Your task to perform on an android device: turn off priority inbox in the gmail app Image 0: 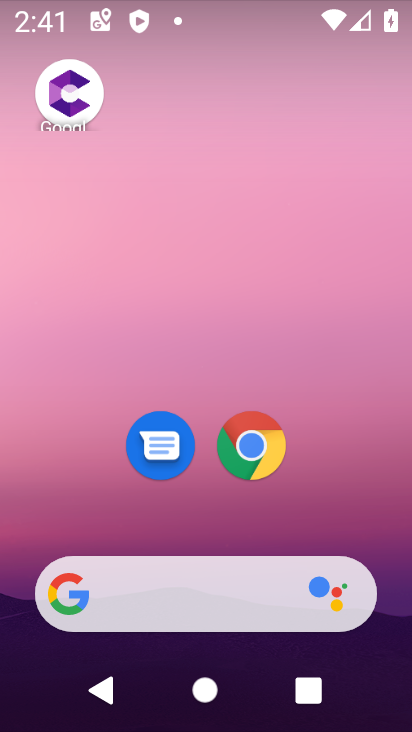
Step 0: drag from (327, 524) to (313, 56)
Your task to perform on an android device: turn off priority inbox in the gmail app Image 1: 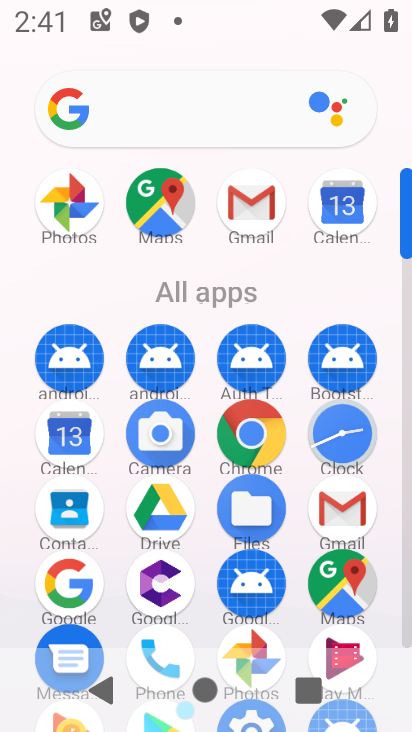
Step 1: drag from (296, 537) to (309, 221)
Your task to perform on an android device: turn off priority inbox in the gmail app Image 2: 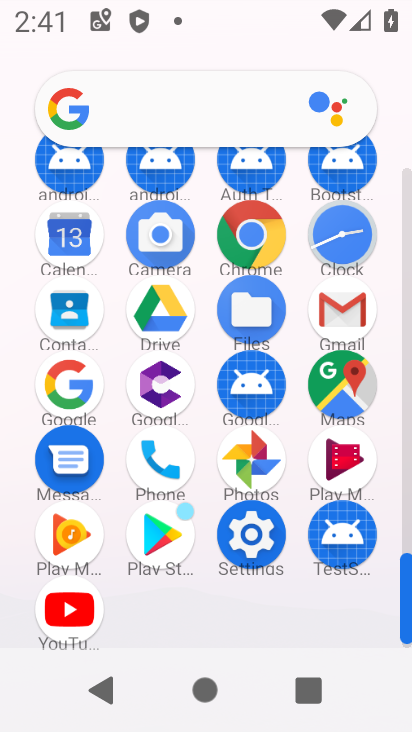
Step 2: click (254, 540)
Your task to perform on an android device: turn off priority inbox in the gmail app Image 3: 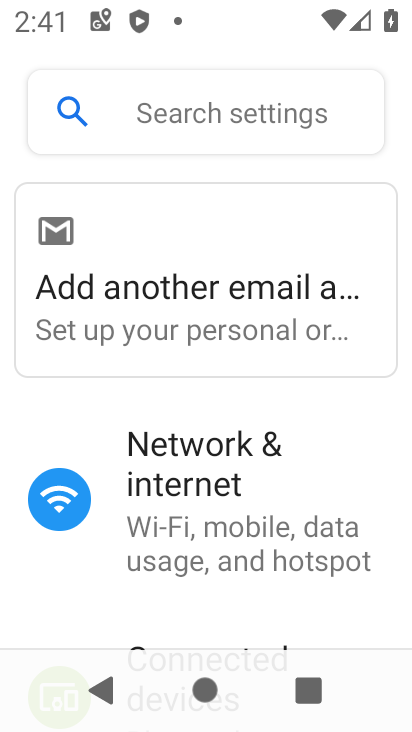
Step 3: drag from (249, 541) to (295, 201)
Your task to perform on an android device: turn off priority inbox in the gmail app Image 4: 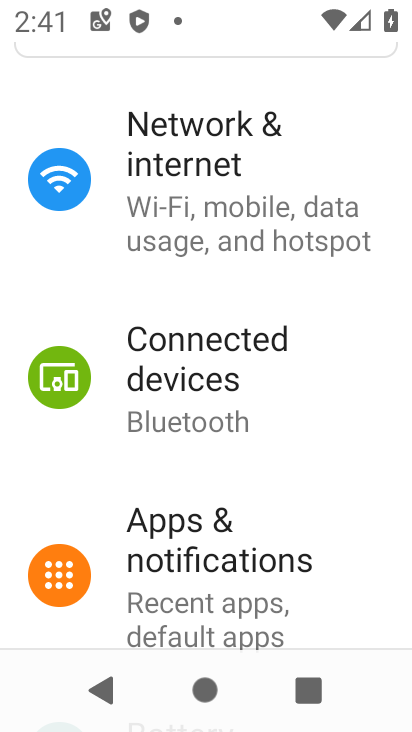
Step 4: drag from (233, 532) to (262, 201)
Your task to perform on an android device: turn off priority inbox in the gmail app Image 5: 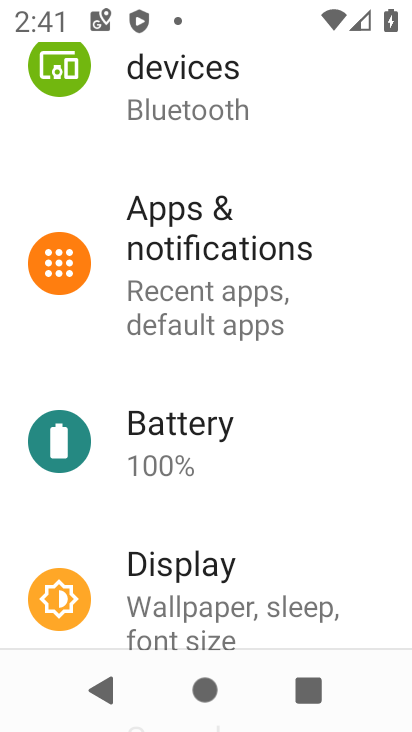
Step 5: drag from (237, 549) to (234, 235)
Your task to perform on an android device: turn off priority inbox in the gmail app Image 6: 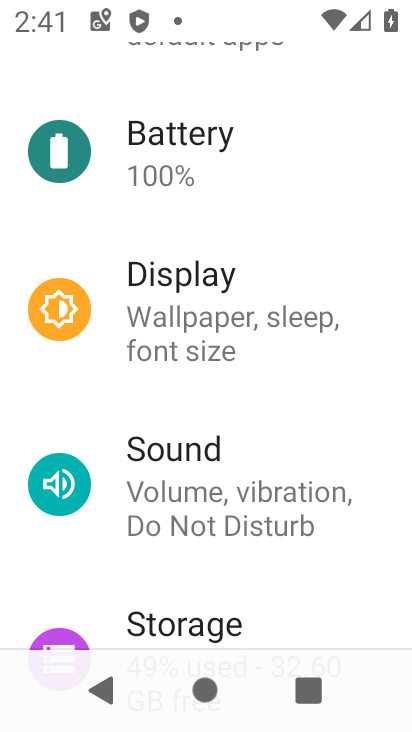
Step 6: click (229, 306)
Your task to perform on an android device: turn off priority inbox in the gmail app Image 7: 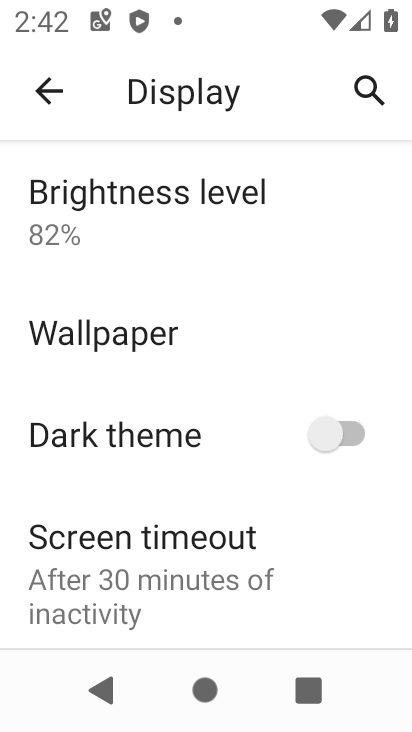
Step 7: drag from (150, 557) to (224, 176)
Your task to perform on an android device: turn off priority inbox in the gmail app Image 8: 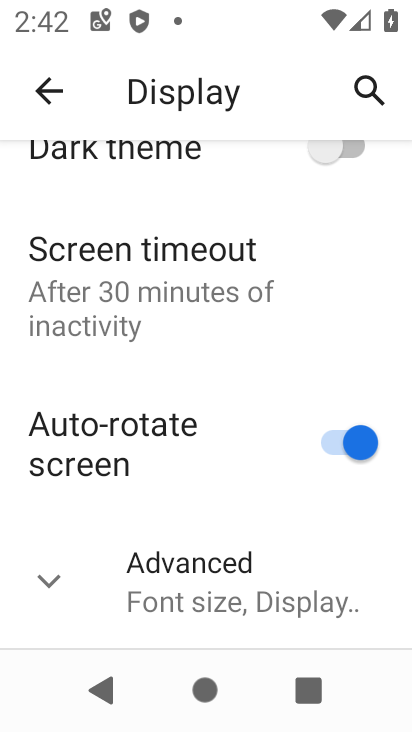
Step 8: click (51, 576)
Your task to perform on an android device: turn off priority inbox in the gmail app Image 9: 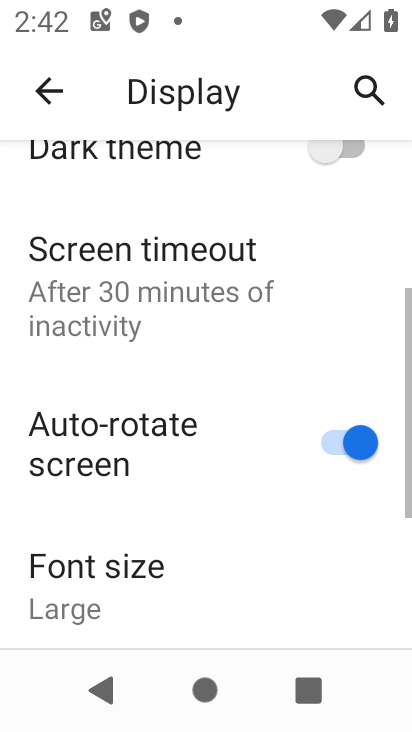
Step 9: drag from (190, 504) to (234, 203)
Your task to perform on an android device: turn off priority inbox in the gmail app Image 10: 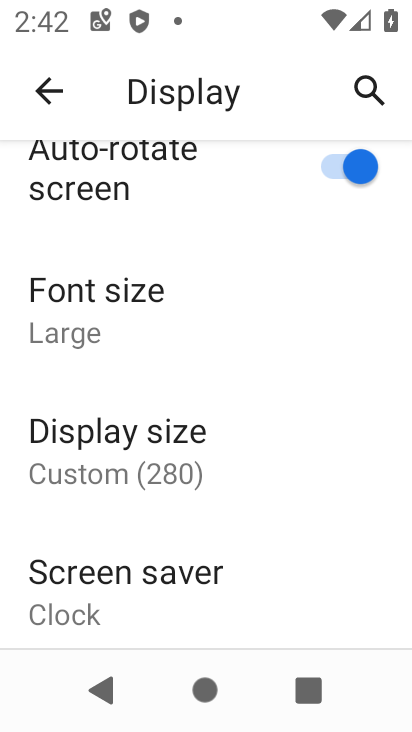
Step 10: click (152, 463)
Your task to perform on an android device: turn off priority inbox in the gmail app Image 11: 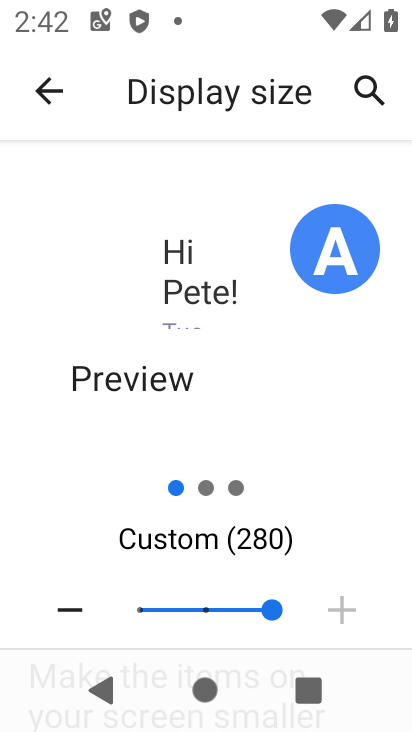
Step 11: click (71, 608)
Your task to perform on an android device: turn off priority inbox in the gmail app Image 12: 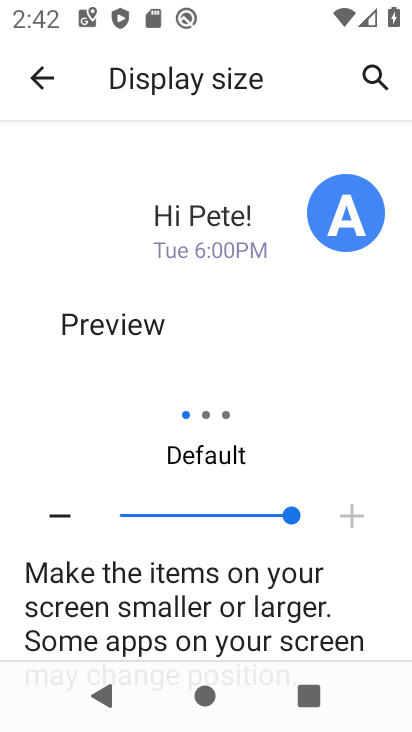
Step 12: click (61, 506)
Your task to perform on an android device: turn off priority inbox in the gmail app Image 13: 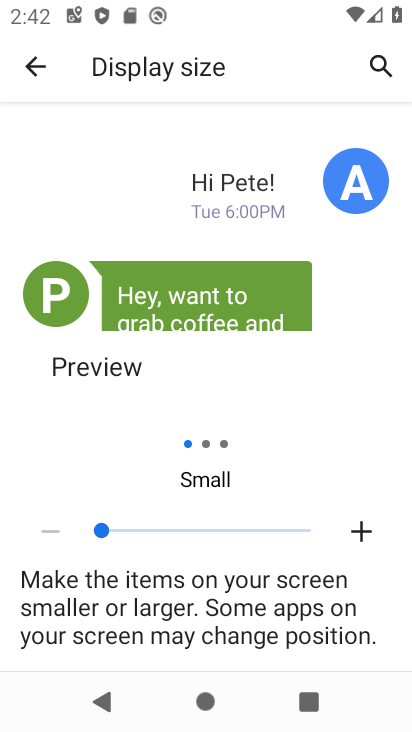
Step 13: click (34, 60)
Your task to perform on an android device: turn off priority inbox in the gmail app Image 14: 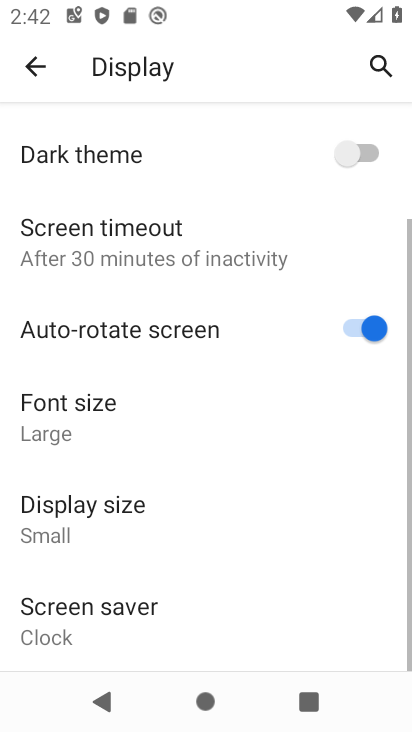
Step 14: click (34, 60)
Your task to perform on an android device: turn off priority inbox in the gmail app Image 15: 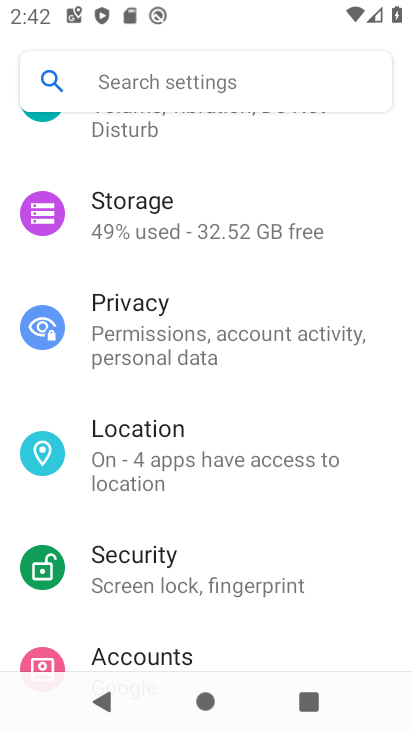
Step 15: drag from (225, 312) to (228, 604)
Your task to perform on an android device: turn off priority inbox in the gmail app Image 16: 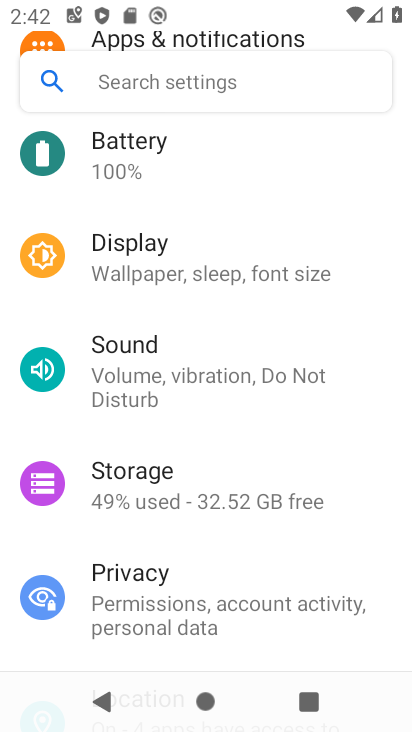
Step 16: drag from (261, 209) to (235, 557)
Your task to perform on an android device: turn off priority inbox in the gmail app Image 17: 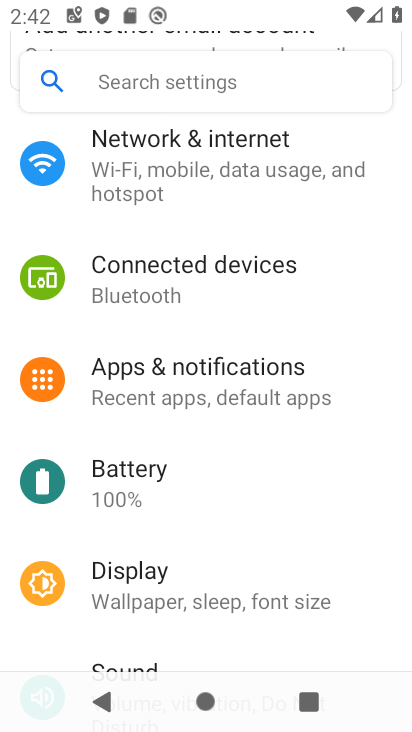
Step 17: press home button
Your task to perform on an android device: turn off priority inbox in the gmail app Image 18: 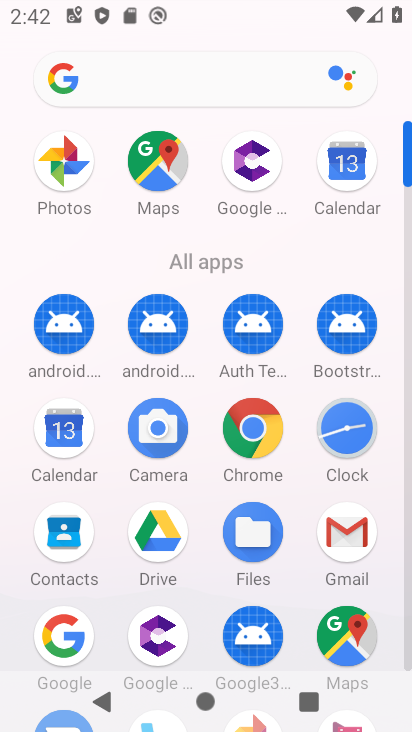
Step 18: click (346, 524)
Your task to perform on an android device: turn off priority inbox in the gmail app Image 19: 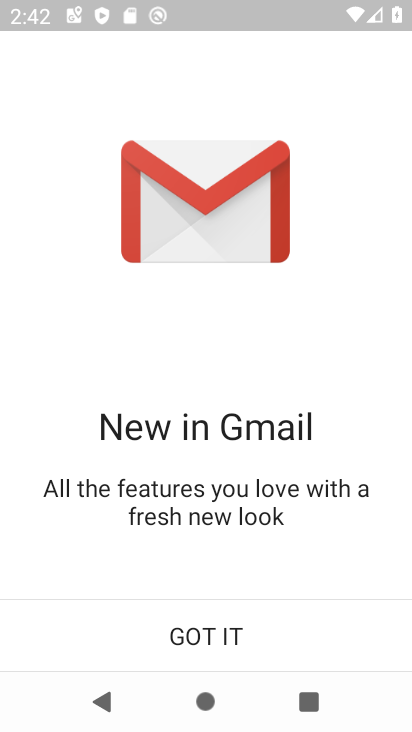
Step 19: click (218, 628)
Your task to perform on an android device: turn off priority inbox in the gmail app Image 20: 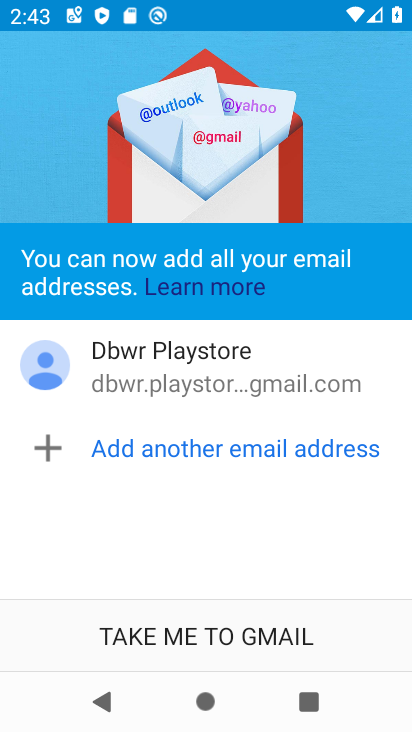
Step 20: click (230, 635)
Your task to perform on an android device: turn off priority inbox in the gmail app Image 21: 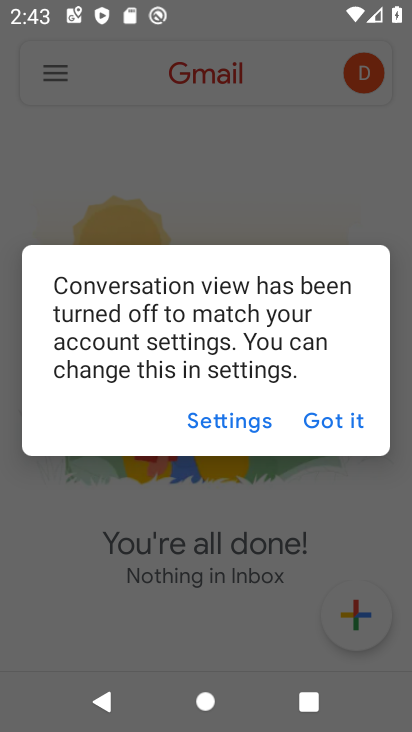
Step 21: click (342, 405)
Your task to perform on an android device: turn off priority inbox in the gmail app Image 22: 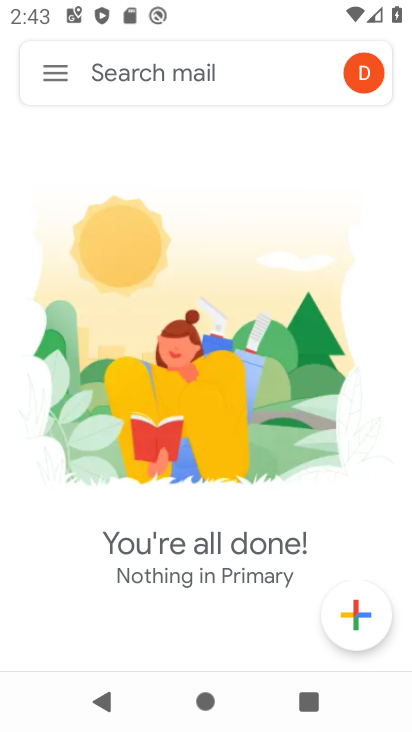
Step 22: click (54, 71)
Your task to perform on an android device: turn off priority inbox in the gmail app Image 23: 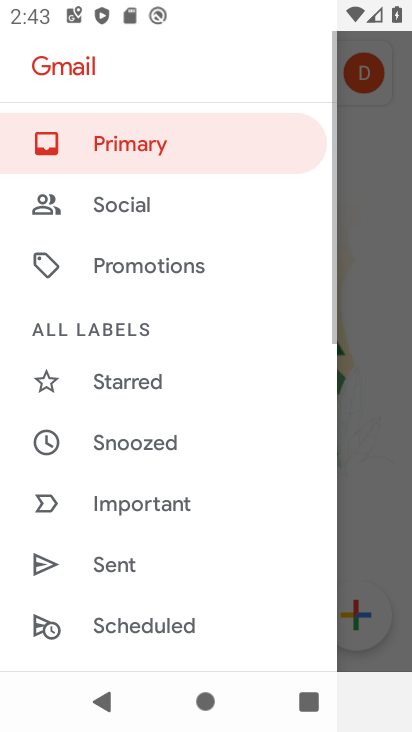
Step 23: drag from (172, 534) to (216, 133)
Your task to perform on an android device: turn off priority inbox in the gmail app Image 24: 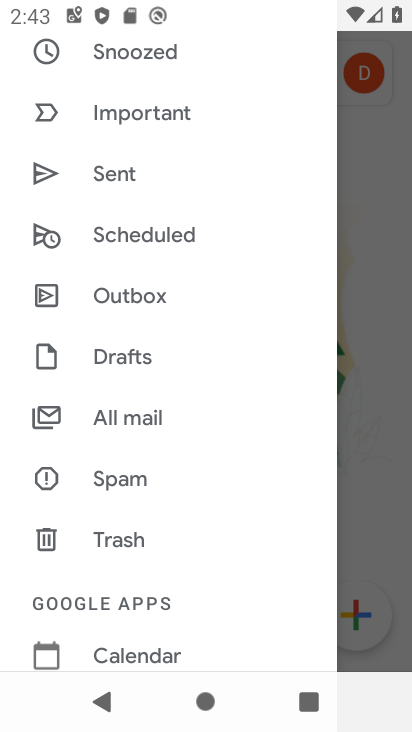
Step 24: drag from (207, 542) to (253, 166)
Your task to perform on an android device: turn off priority inbox in the gmail app Image 25: 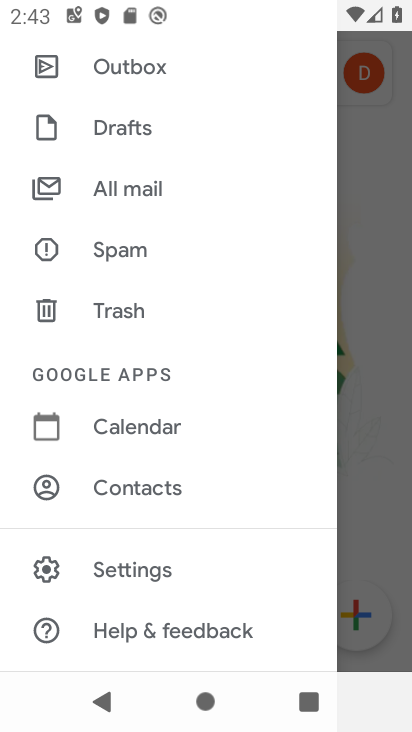
Step 25: click (166, 563)
Your task to perform on an android device: turn off priority inbox in the gmail app Image 26: 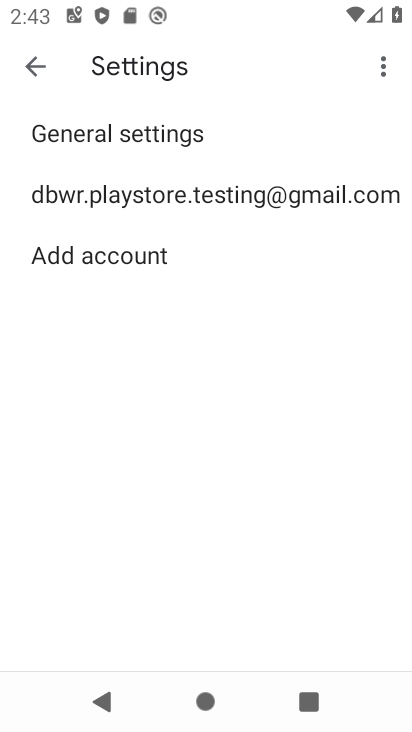
Step 26: click (244, 194)
Your task to perform on an android device: turn off priority inbox in the gmail app Image 27: 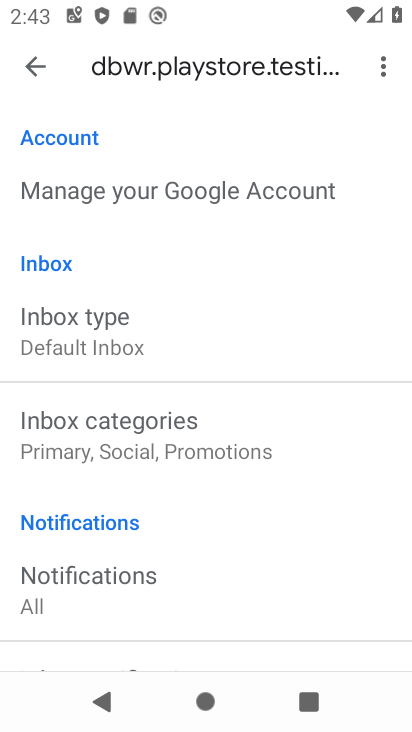
Step 27: click (109, 327)
Your task to perform on an android device: turn off priority inbox in the gmail app Image 28: 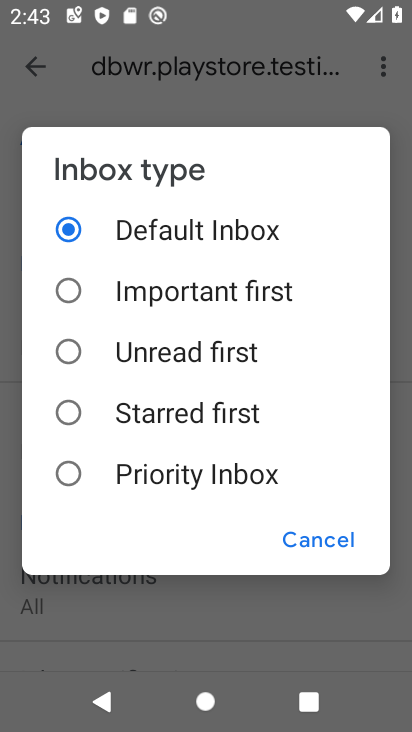
Step 28: click (70, 291)
Your task to perform on an android device: turn off priority inbox in the gmail app Image 29: 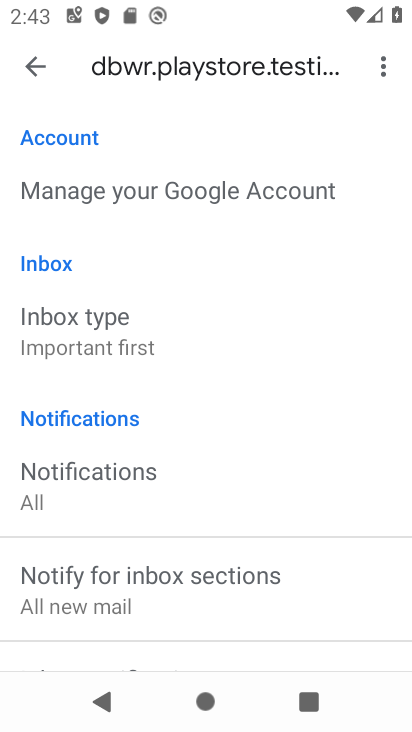
Step 29: task complete